Your task to perform on an android device: What's the weather going to be this weekend? Image 0: 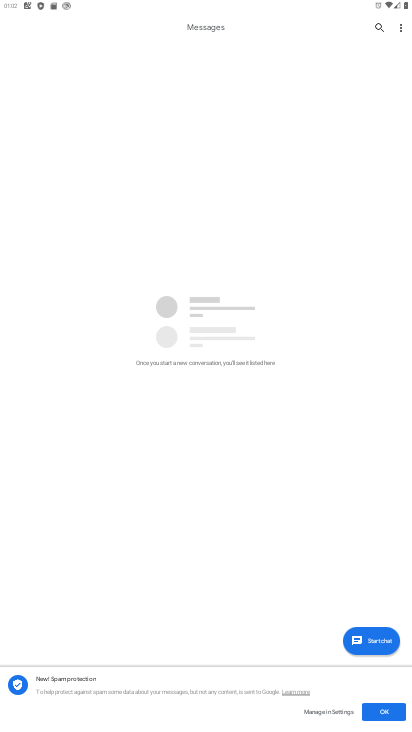
Step 0: press back button
Your task to perform on an android device: What's the weather going to be this weekend? Image 1: 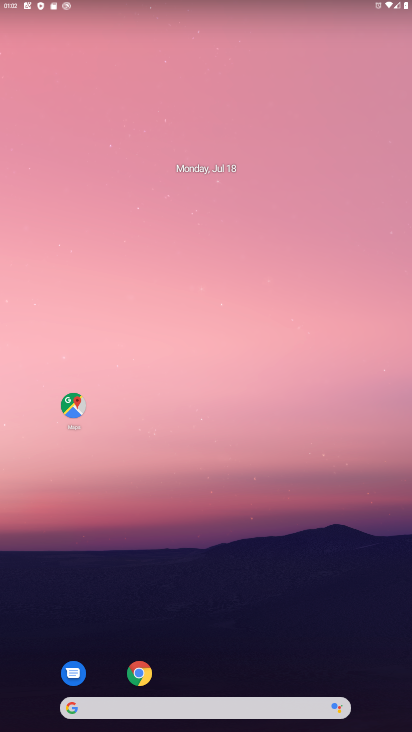
Step 1: click (178, 712)
Your task to perform on an android device: What's the weather going to be this weekend? Image 2: 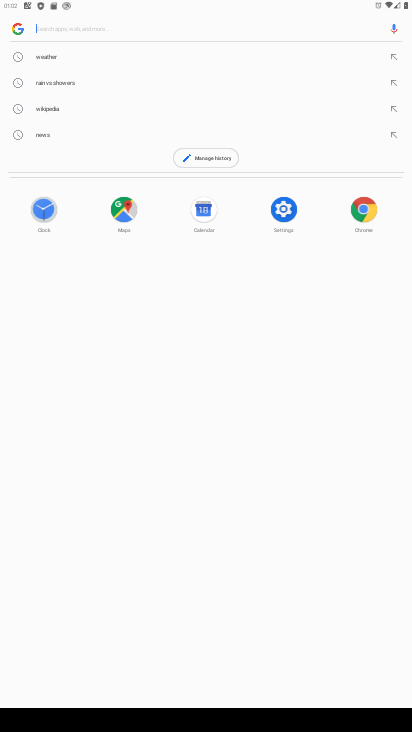
Step 2: click (106, 60)
Your task to perform on an android device: What's the weather going to be this weekend? Image 3: 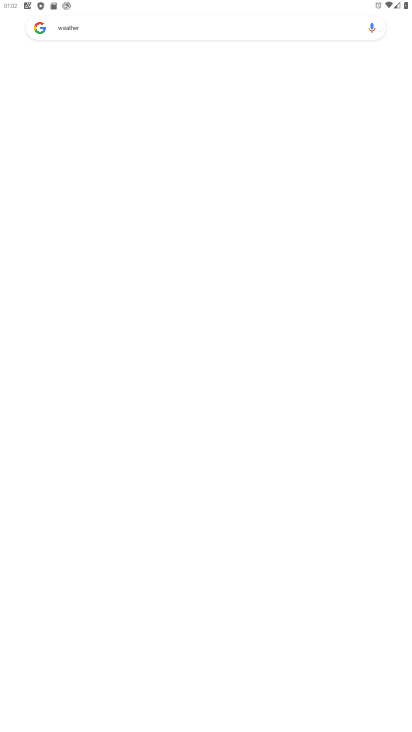
Step 3: task complete